Your task to perform on an android device: Check the weather Image 0: 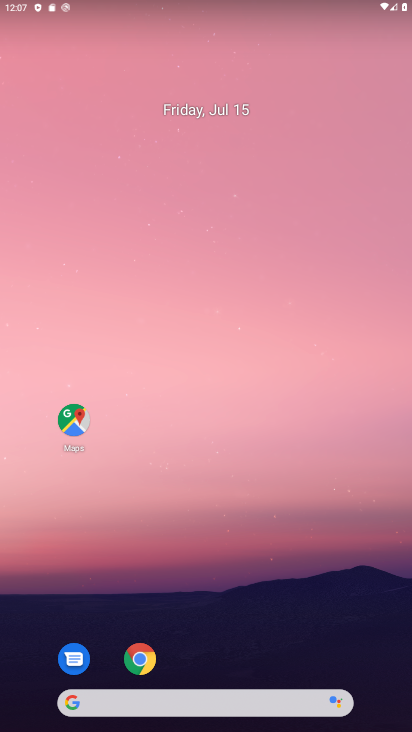
Step 0: drag from (210, 657) to (185, 212)
Your task to perform on an android device: Check the weather Image 1: 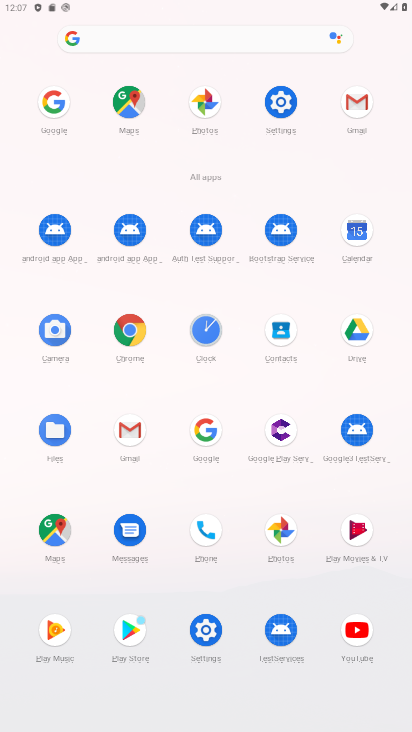
Step 1: click (204, 449)
Your task to perform on an android device: Check the weather Image 2: 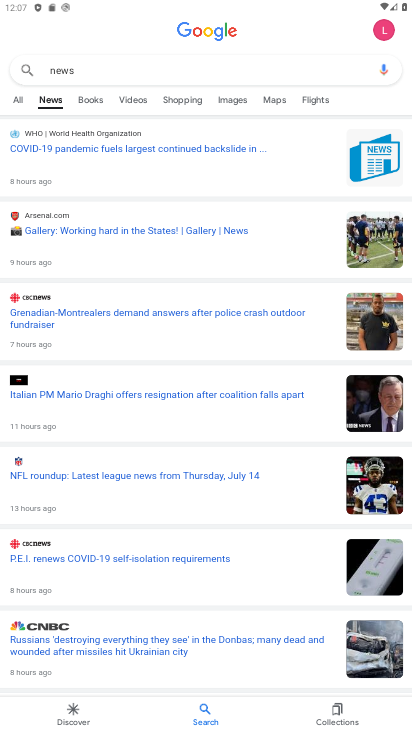
Step 2: drag from (104, 71) to (54, 71)
Your task to perform on an android device: Check the weather Image 3: 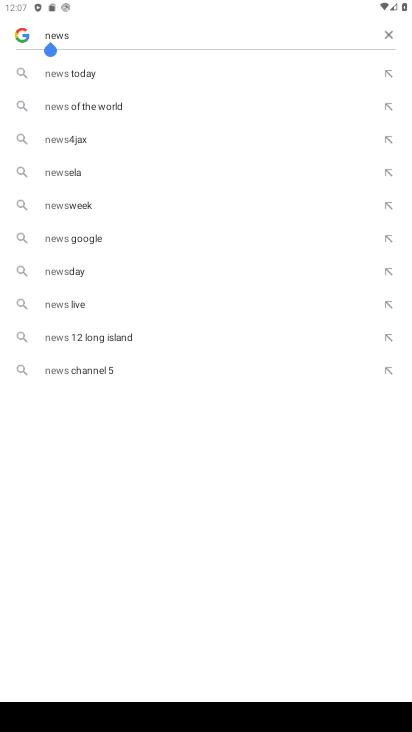
Step 3: click (389, 33)
Your task to perform on an android device: Check the weather Image 4: 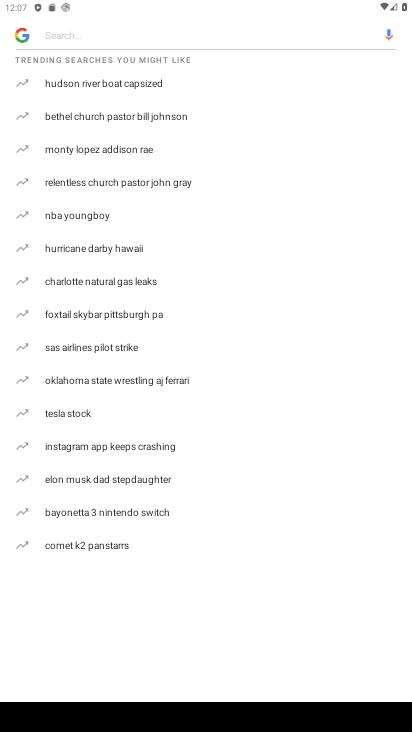
Step 4: type "weather"
Your task to perform on an android device: Check the weather Image 5: 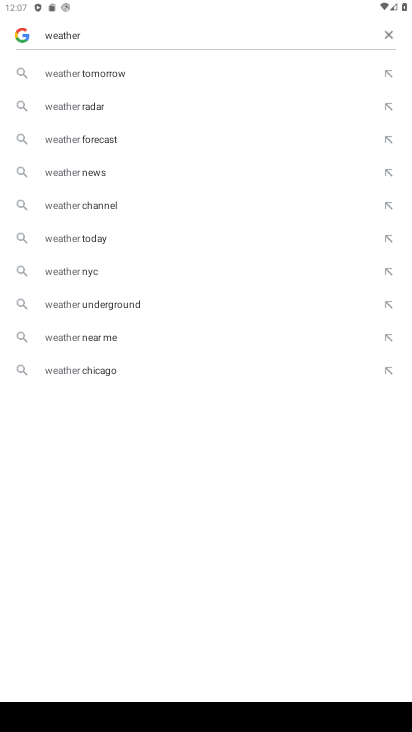
Step 5: click (94, 78)
Your task to perform on an android device: Check the weather Image 6: 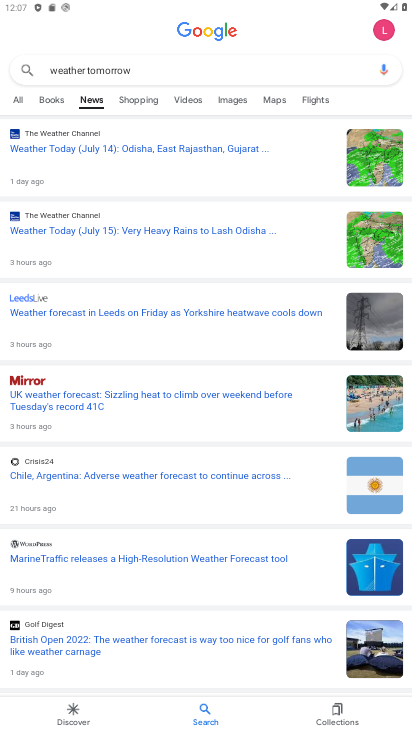
Step 6: click (27, 101)
Your task to perform on an android device: Check the weather Image 7: 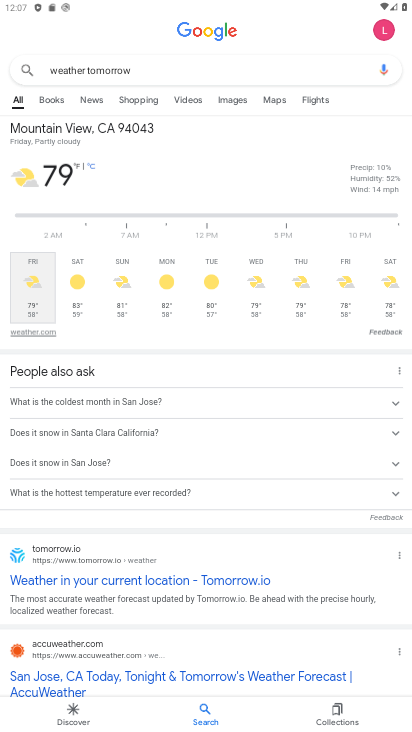
Step 7: task complete